Your task to perform on an android device: Search for sushi restaurants on Maps Image 0: 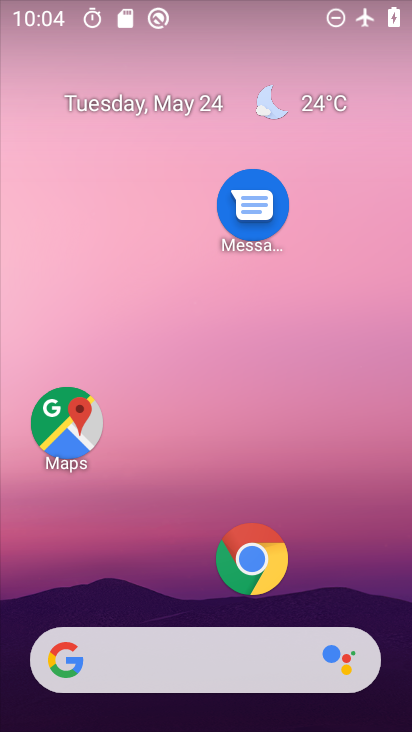
Step 0: click (79, 445)
Your task to perform on an android device: Search for sushi restaurants on Maps Image 1: 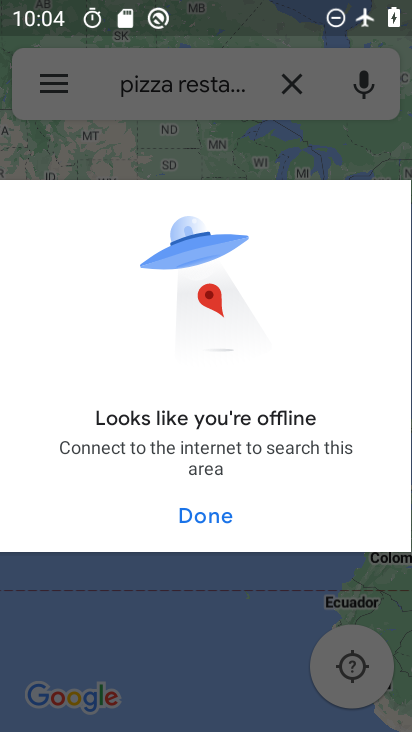
Step 1: task complete